Your task to perform on an android device: turn on javascript in the chrome app Image 0: 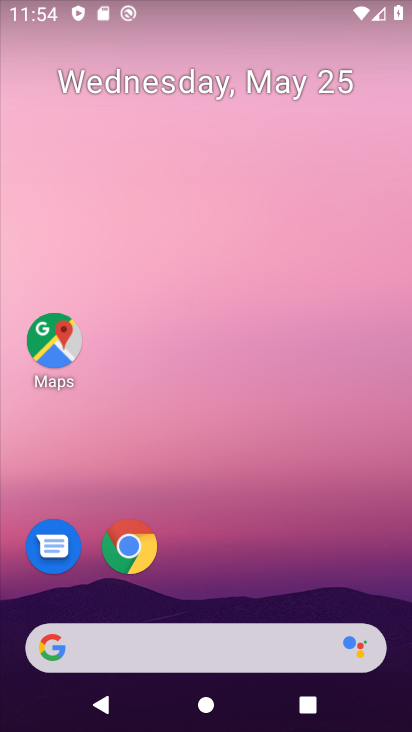
Step 0: drag from (324, 604) to (289, 32)
Your task to perform on an android device: turn on javascript in the chrome app Image 1: 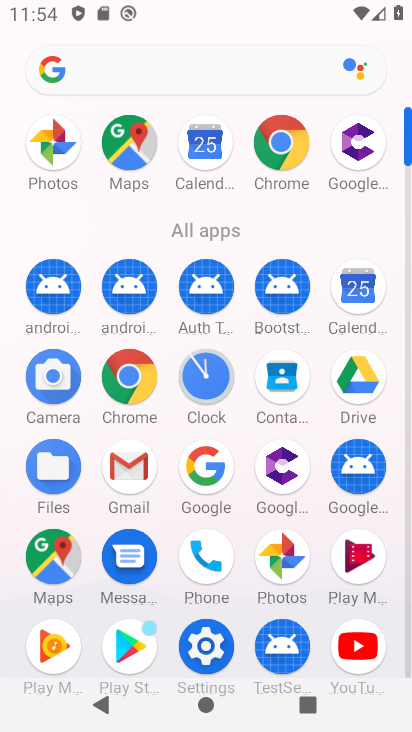
Step 1: click (137, 385)
Your task to perform on an android device: turn on javascript in the chrome app Image 2: 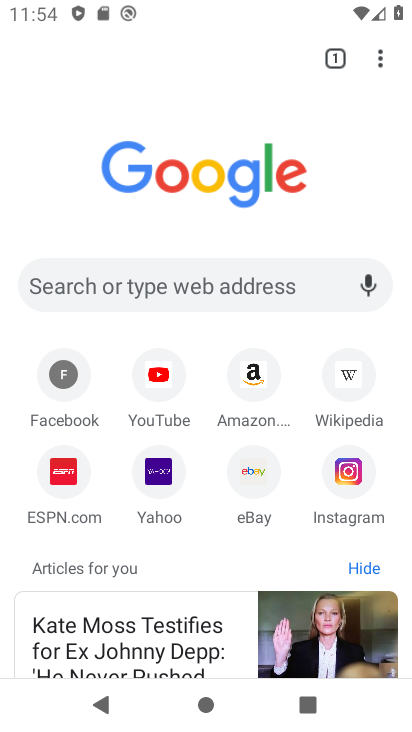
Step 2: click (380, 59)
Your task to perform on an android device: turn on javascript in the chrome app Image 3: 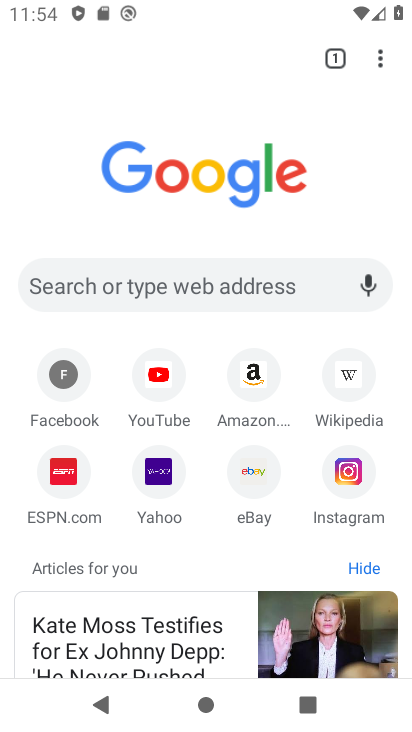
Step 3: click (378, 58)
Your task to perform on an android device: turn on javascript in the chrome app Image 4: 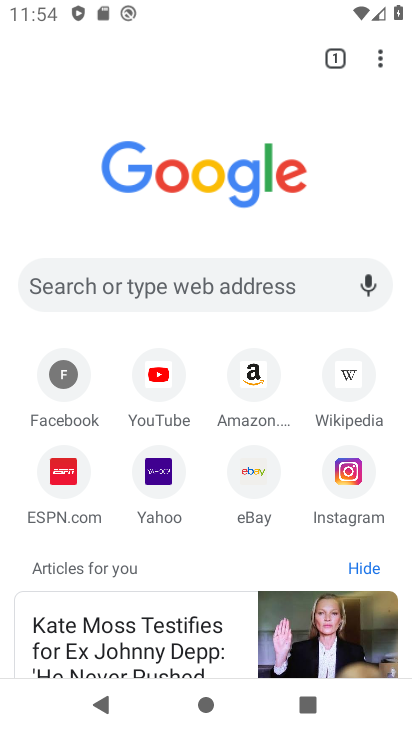
Step 4: click (378, 58)
Your task to perform on an android device: turn on javascript in the chrome app Image 5: 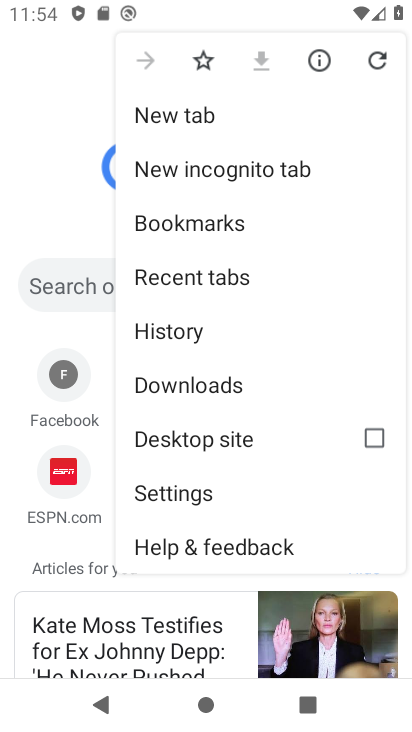
Step 5: click (193, 490)
Your task to perform on an android device: turn on javascript in the chrome app Image 6: 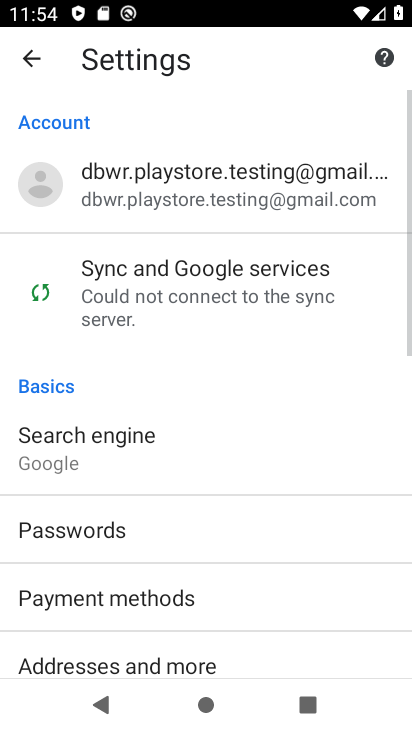
Step 6: drag from (184, 608) to (251, 199)
Your task to perform on an android device: turn on javascript in the chrome app Image 7: 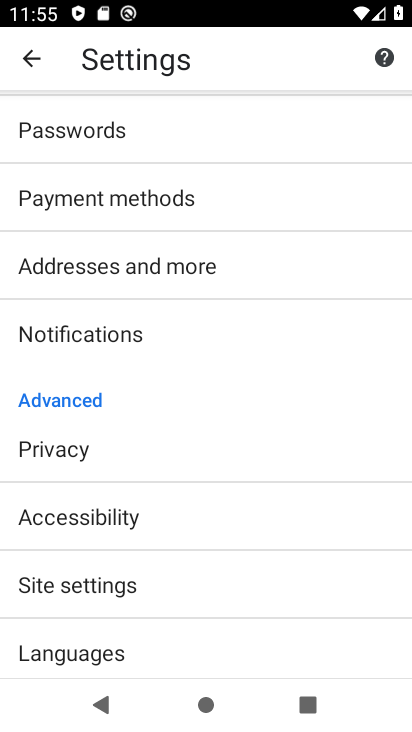
Step 7: click (134, 573)
Your task to perform on an android device: turn on javascript in the chrome app Image 8: 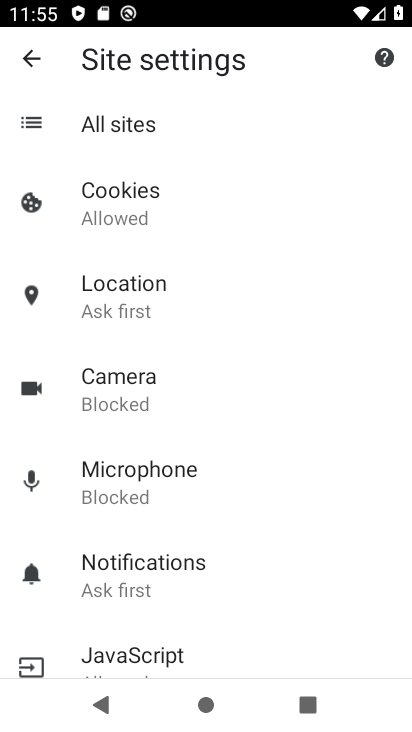
Step 8: click (187, 654)
Your task to perform on an android device: turn on javascript in the chrome app Image 9: 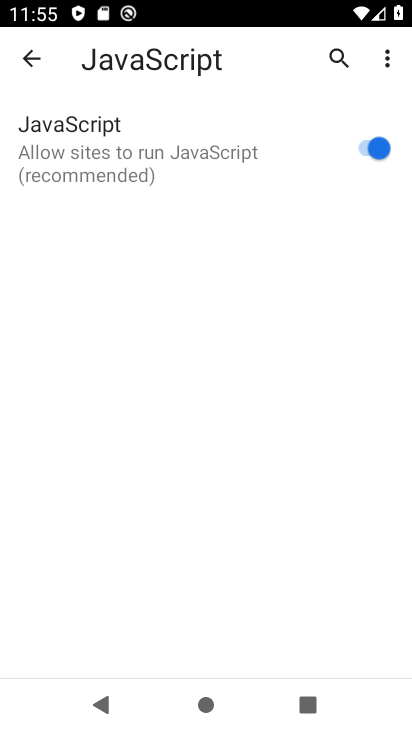
Step 9: task complete